Your task to perform on an android device: Do I have any events this weekend? Image 0: 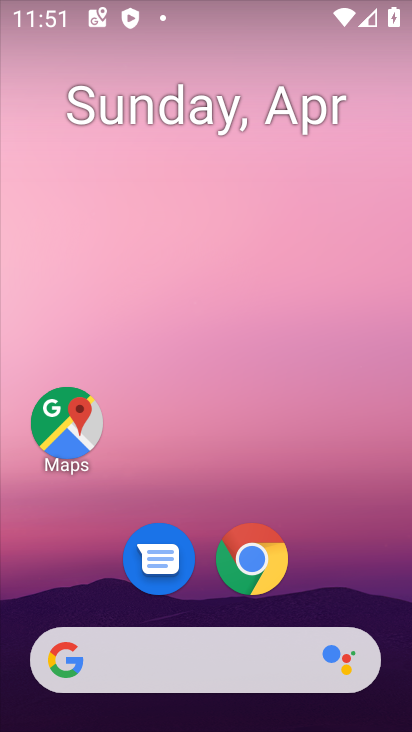
Step 0: drag from (340, 580) to (291, 297)
Your task to perform on an android device: Do I have any events this weekend? Image 1: 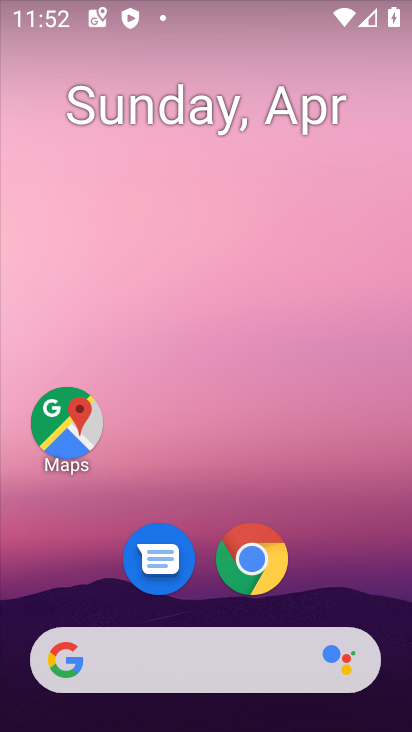
Step 1: drag from (327, 585) to (294, 173)
Your task to perform on an android device: Do I have any events this weekend? Image 2: 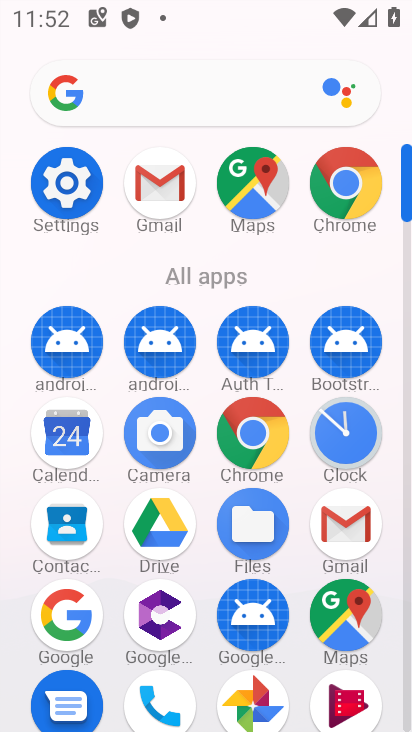
Step 2: click (86, 455)
Your task to perform on an android device: Do I have any events this weekend? Image 3: 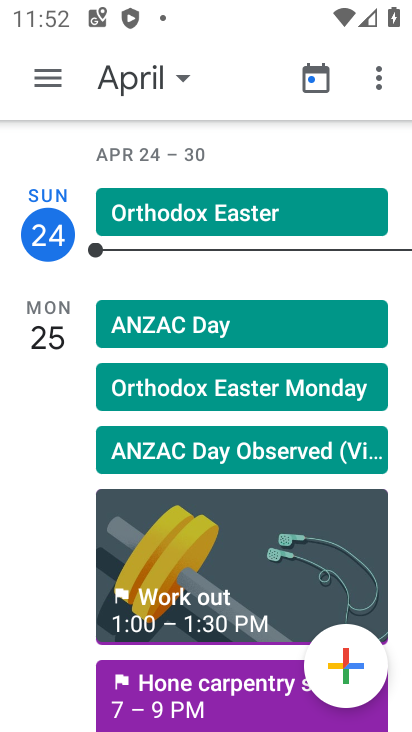
Step 3: click (115, 80)
Your task to perform on an android device: Do I have any events this weekend? Image 4: 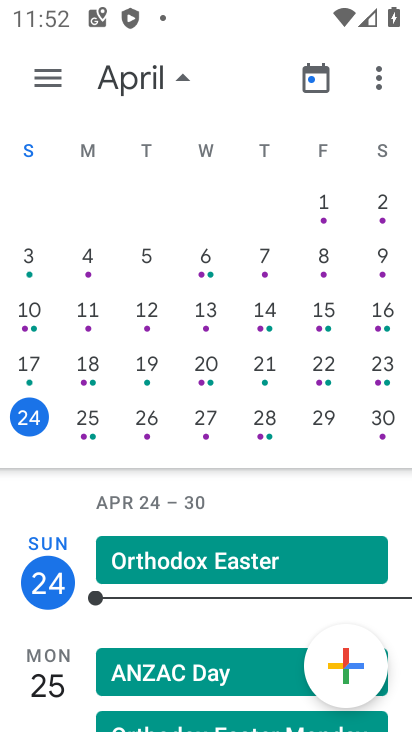
Step 4: click (208, 409)
Your task to perform on an android device: Do I have any events this weekend? Image 5: 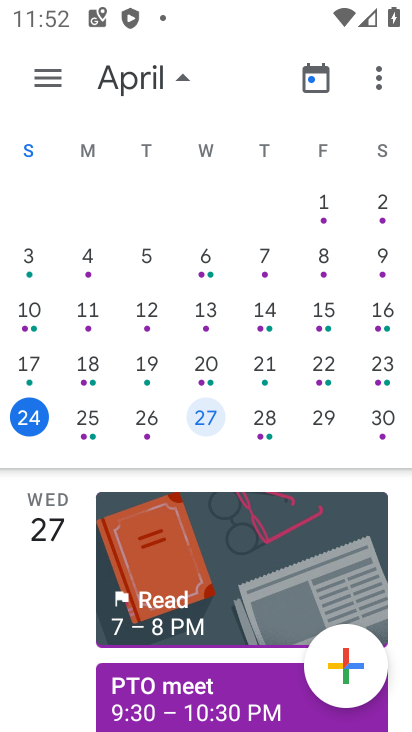
Step 5: click (207, 410)
Your task to perform on an android device: Do I have any events this weekend? Image 6: 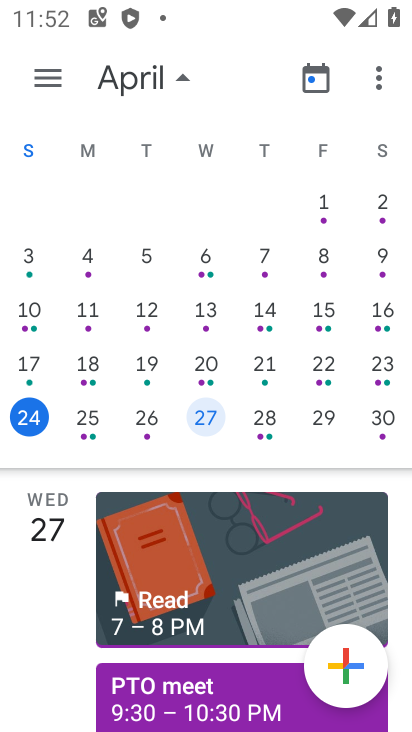
Step 6: task complete